Your task to perform on an android device: turn on translation in the chrome app Image 0: 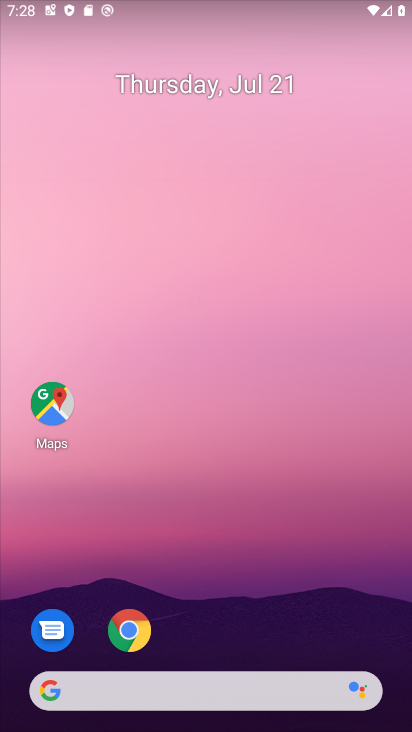
Step 0: click (136, 629)
Your task to perform on an android device: turn on translation in the chrome app Image 1: 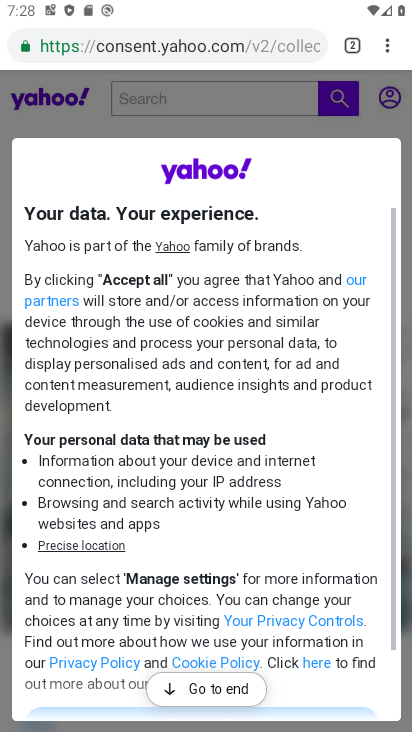
Step 1: click (388, 40)
Your task to perform on an android device: turn on translation in the chrome app Image 2: 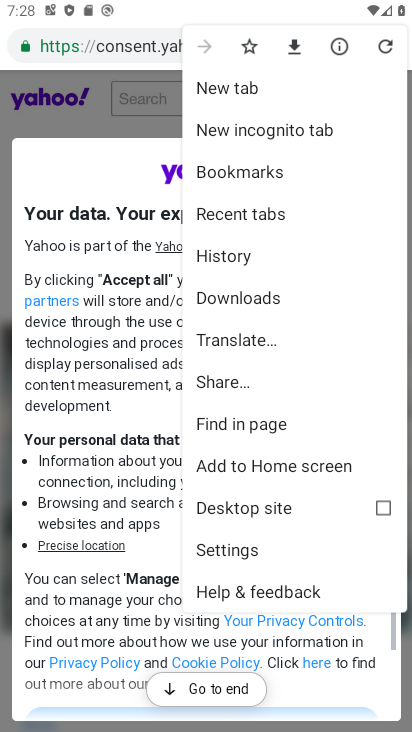
Step 2: click (250, 548)
Your task to perform on an android device: turn on translation in the chrome app Image 3: 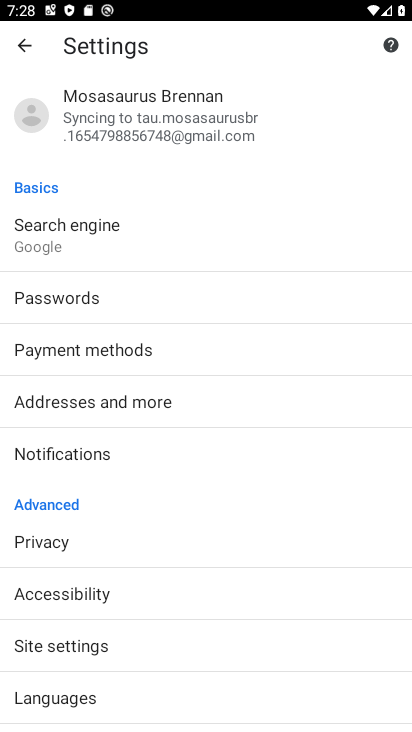
Step 3: click (72, 698)
Your task to perform on an android device: turn on translation in the chrome app Image 4: 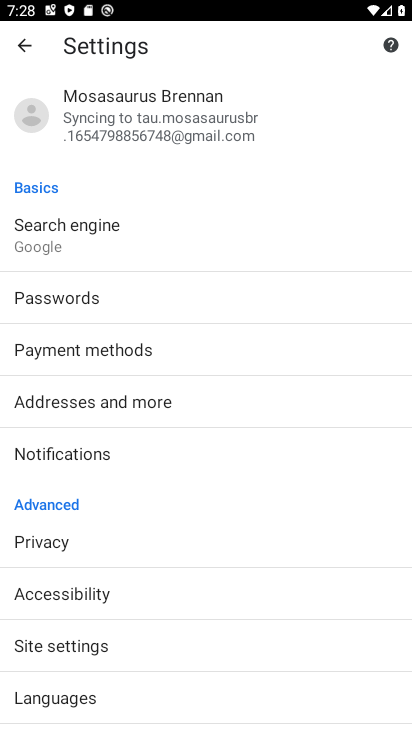
Step 4: click (72, 698)
Your task to perform on an android device: turn on translation in the chrome app Image 5: 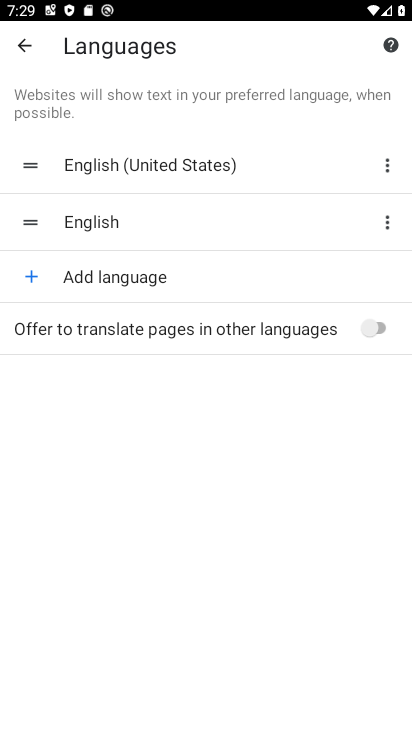
Step 5: click (369, 326)
Your task to perform on an android device: turn on translation in the chrome app Image 6: 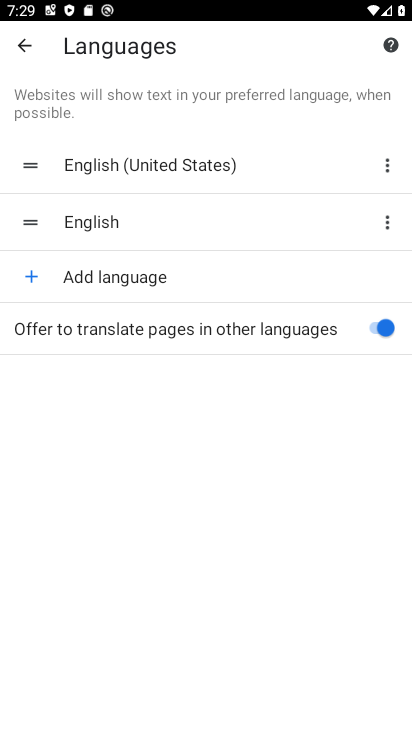
Step 6: task complete